Your task to perform on an android device: Go to display settings Image 0: 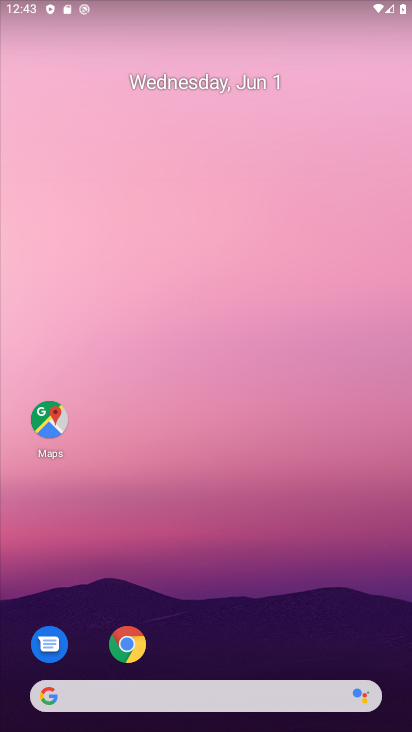
Step 0: press home button
Your task to perform on an android device: Go to display settings Image 1: 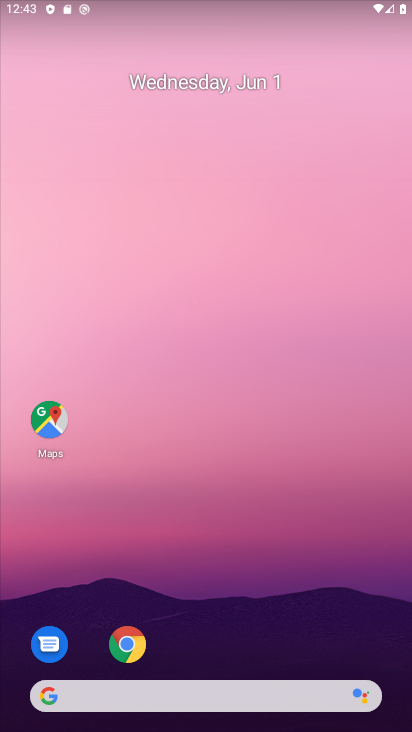
Step 1: drag from (305, 472) to (290, 22)
Your task to perform on an android device: Go to display settings Image 2: 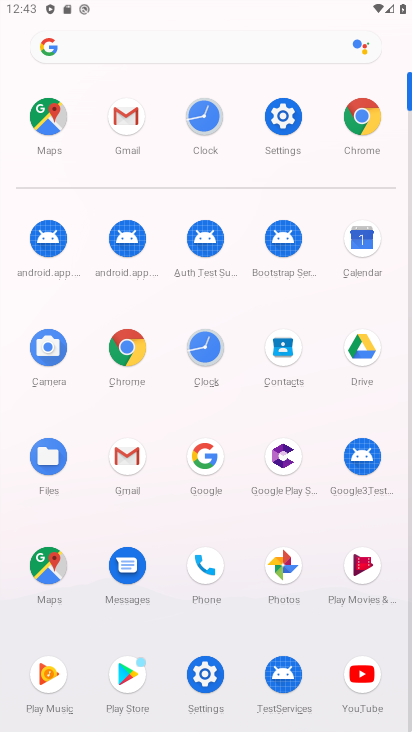
Step 2: click (207, 672)
Your task to perform on an android device: Go to display settings Image 3: 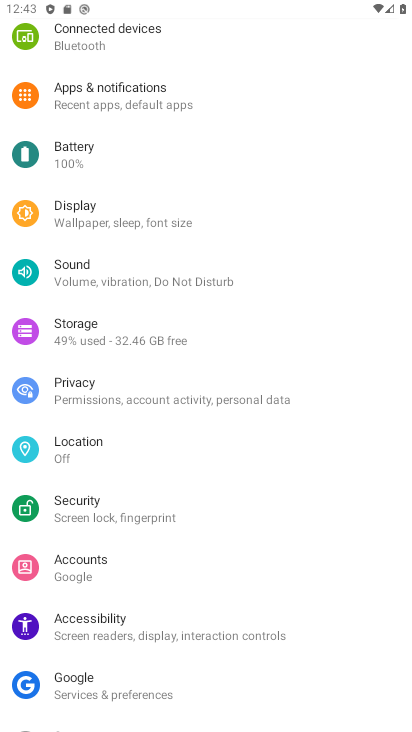
Step 3: click (128, 229)
Your task to perform on an android device: Go to display settings Image 4: 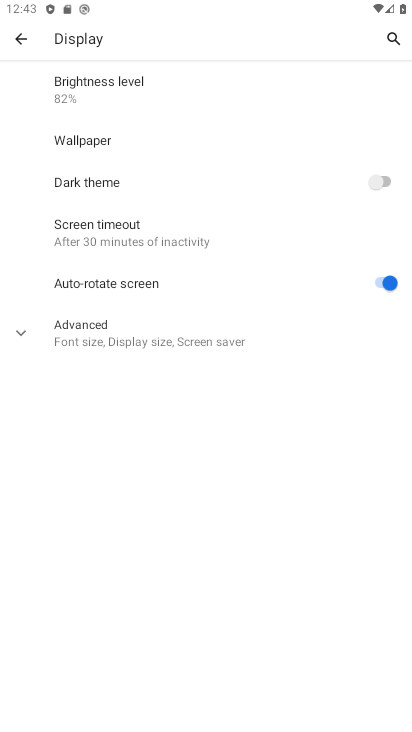
Step 4: task complete